Your task to perform on an android device: Go to ESPN.com Image 0: 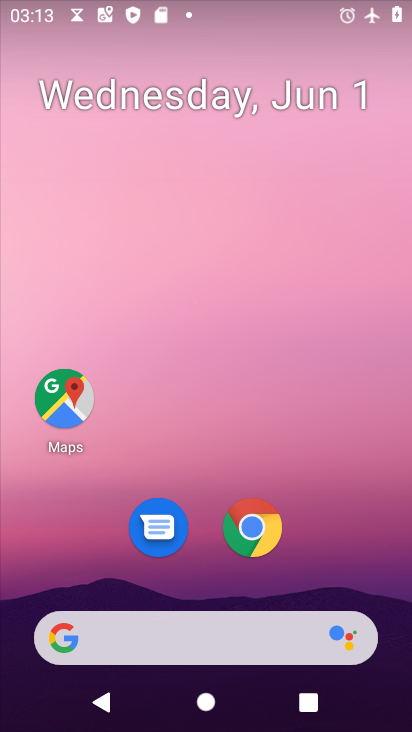
Step 0: click (248, 526)
Your task to perform on an android device: Go to ESPN.com Image 1: 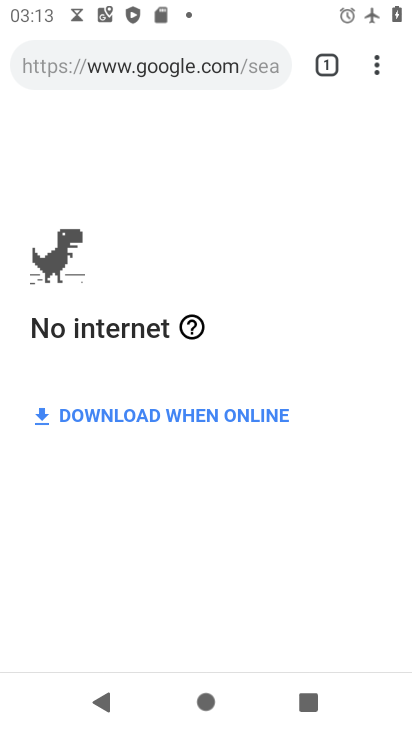
Step 1: click (242, 73)
Your task to perform on an android device: Go to ESPN.com Image 2: 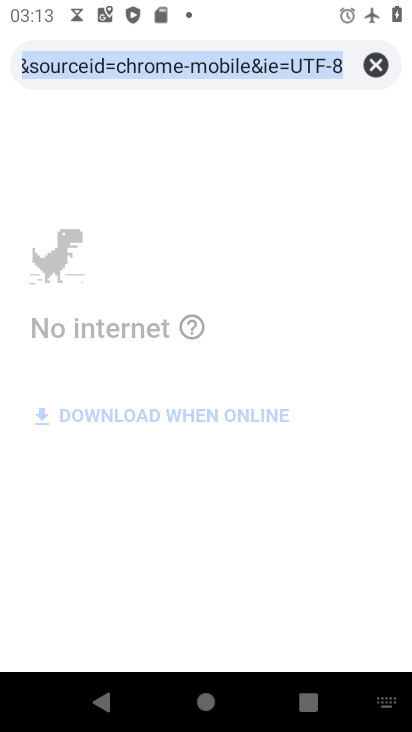
Step 2: click (377, 61)
Your task to perform on an android device: Go to ESPN.com Image 3: 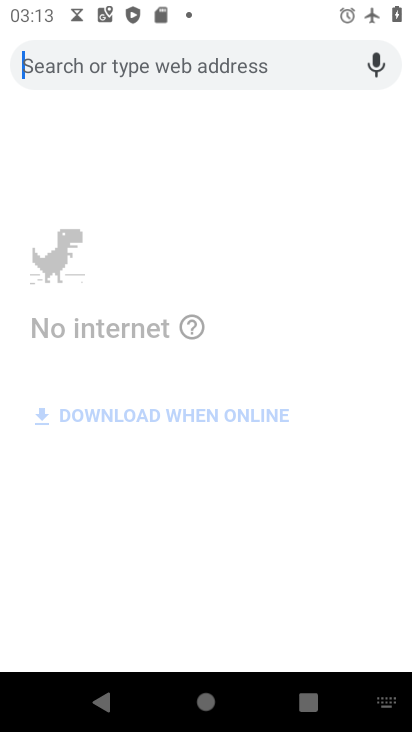
Step 3: type "ESPN.com"
Your task to perform on an android device: Go to ESPN.com Image 4: 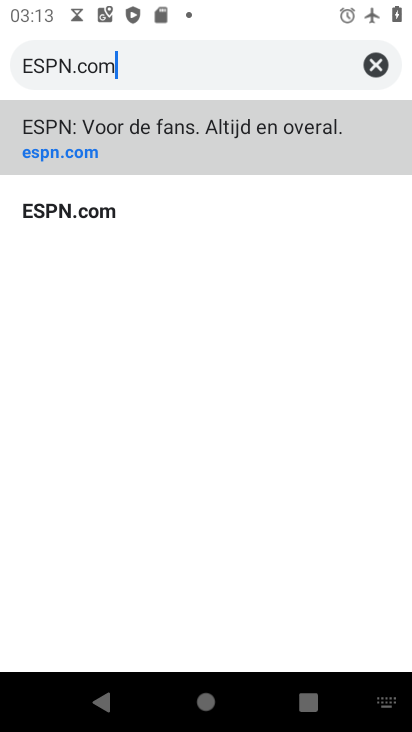
Step 4: click (164, 120)
Your task to perform on an android device: Go to ESPN.com Image 5: 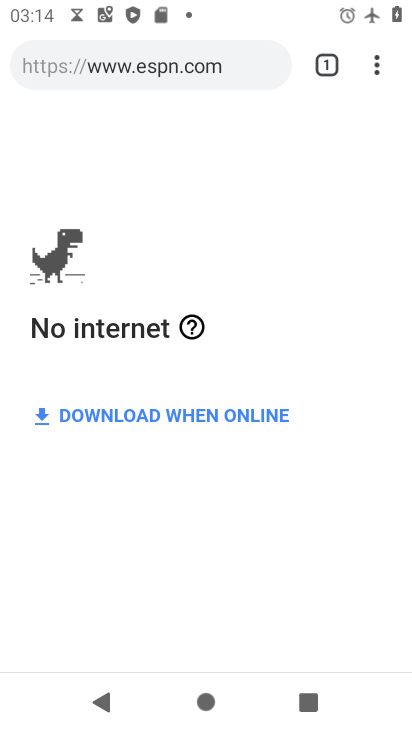
Step 5: task complete